Your task to perform on an android device: turn off picture-in-picture Image 0: 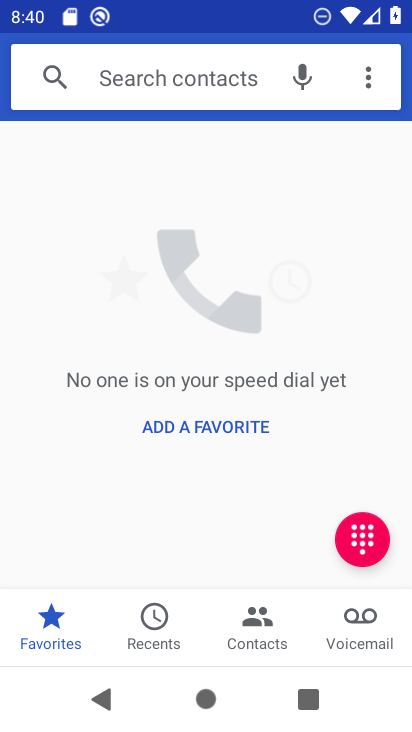
Step 0: press home button
Your task to perform on an android device: turn off picture-in-picture Image 1: 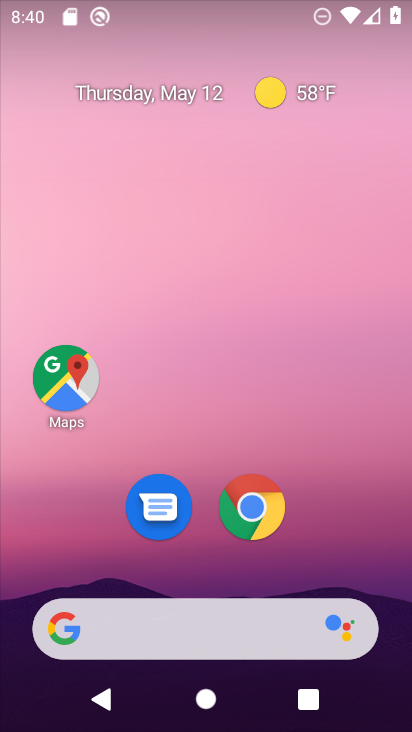
Step 1: click (245, 496)
Your task to perform on an android device: turn off picture-in-picture Image 2: 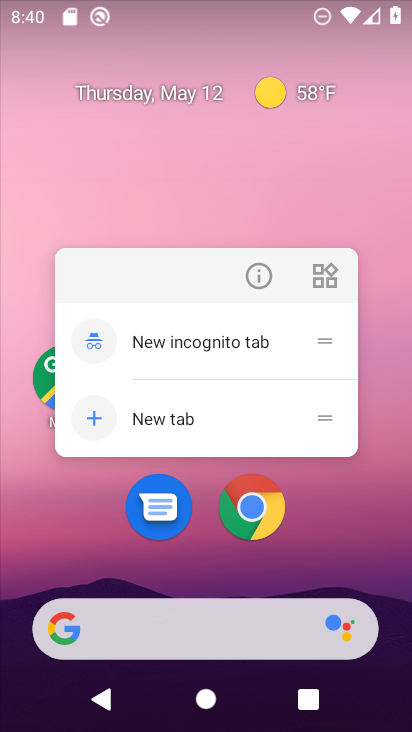
Step 2: click (248, 269)
Your task to perform on an android device: turn off picture-in-picture Image 3: 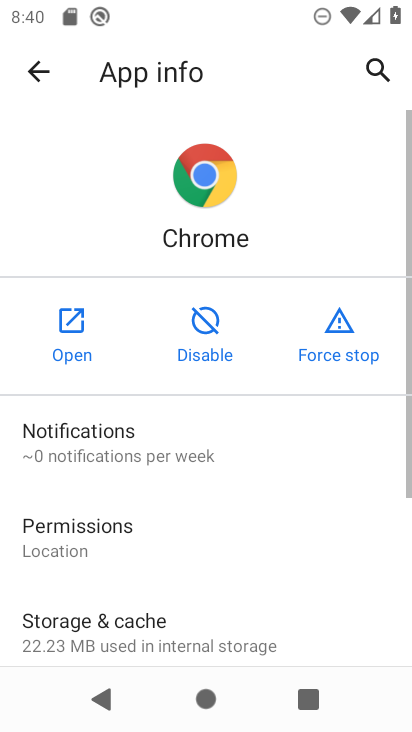
Step 3: drag from (183, 665) to (190, 262)
Your task to perform on an android device: turn off picture-in-picture Image 4: 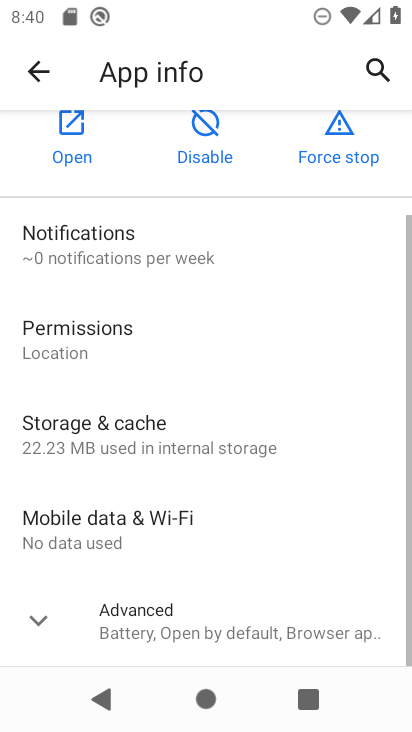
Step 4: drag from (224, 560) to (254, 323)
Your task to perform on an android device: turn off picture-in-picture Image 5: 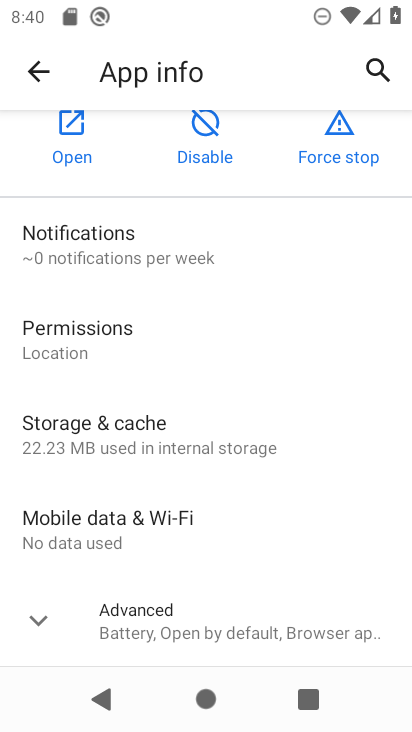
Step 5: click (121, 617)
Your task to perform on an android device: turn off picture-in-picture Image 6: 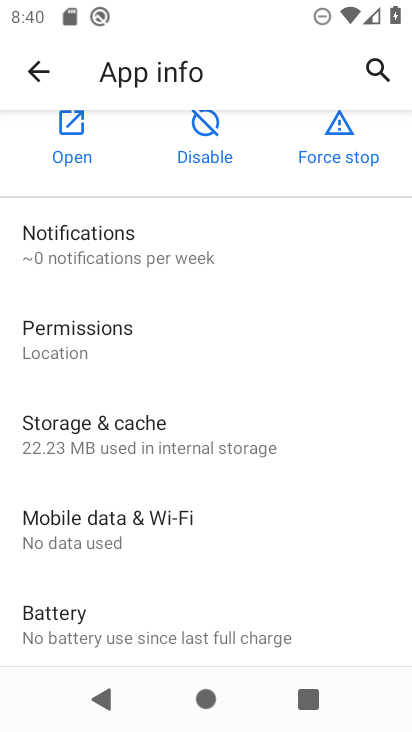
Step 6: drag from (143, 628) to (184, 354)
Your task to perform on an android device: turn off picture-in-picture Image 7: 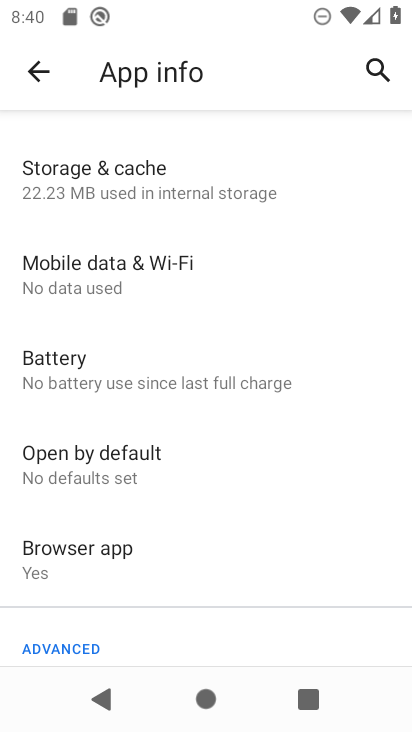
Step 7: drag from (165, 616) to (197, 326)
Your task to perform on an android device: turn off picture-in-picture Image 8: 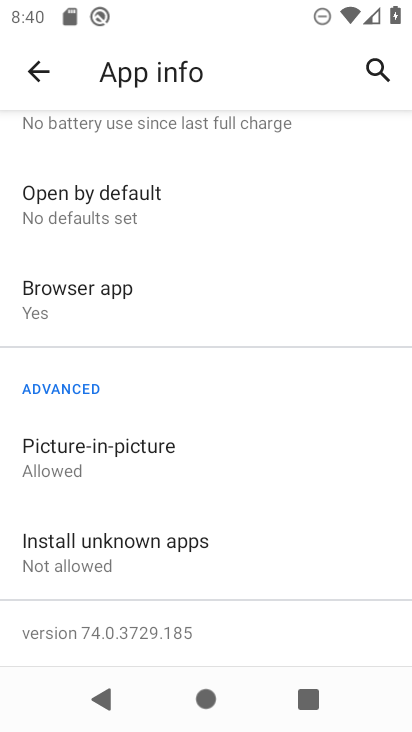
Step 8: click (129, 464)
Your task to perform on an android device: turn off picture-in-picture Image 9: 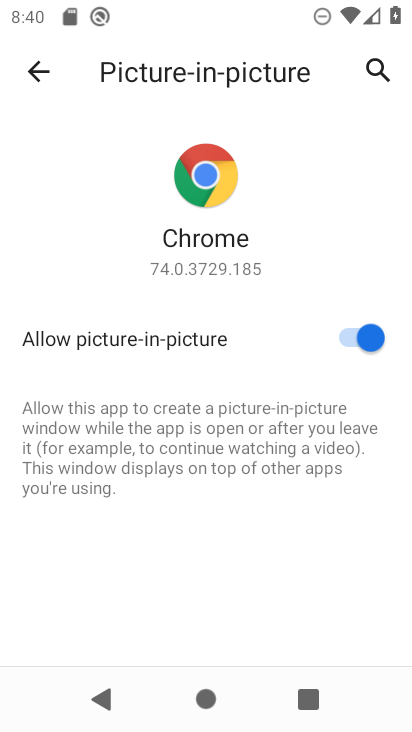
Step 9: click (346, 333)
Your task to perform on an android device: turn off picture-in-picture Image 10: 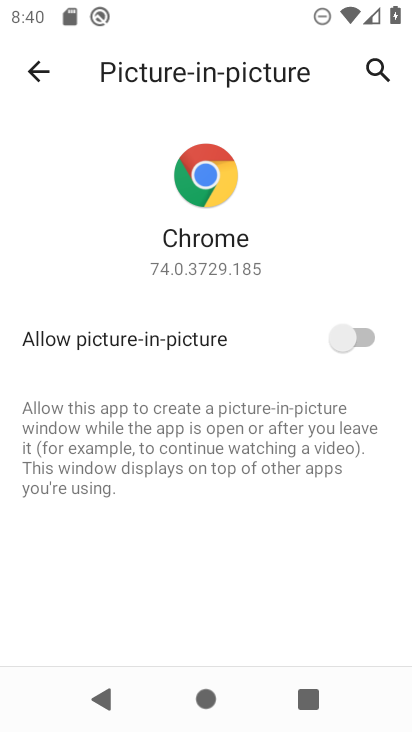
Step 10: task complete